Your task to perform on an android device: turn on translation in the chrome app Image 0: 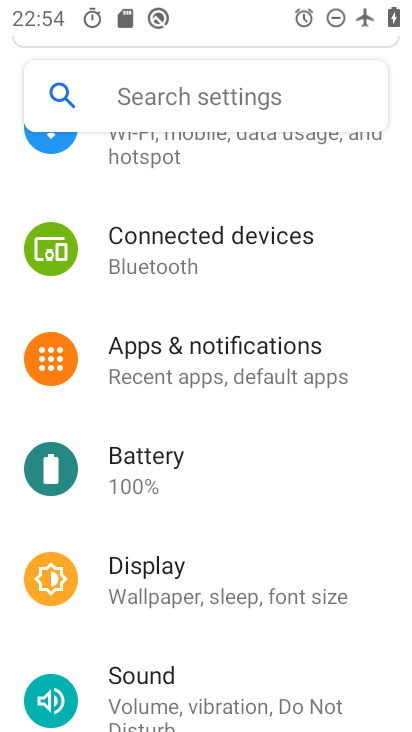
Step 0: press home button
Your task to perform on an android device: turn on translation in the chrome app Image 1: 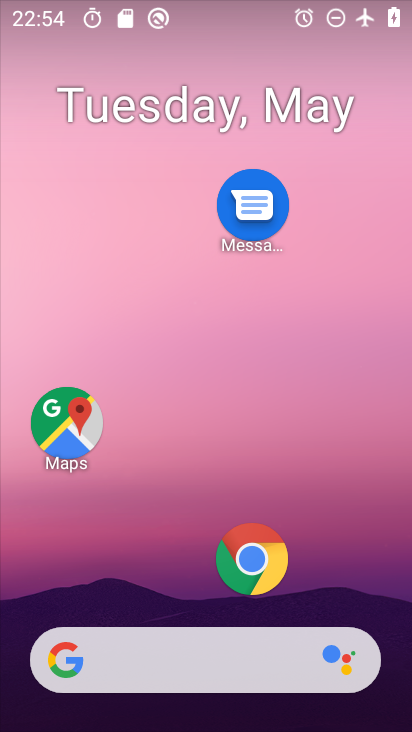
Step 1: click (273, 556)
Your task to perform on an android device: turn on translation in the chrome app Image 2: 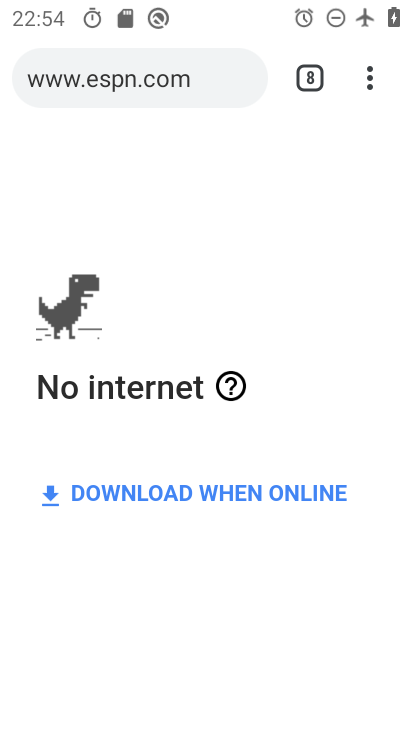
Step 2: drag from (367, 57) to (80, 617)
Your task to perform on an android device: turn on translation in the chrome app Image 3: 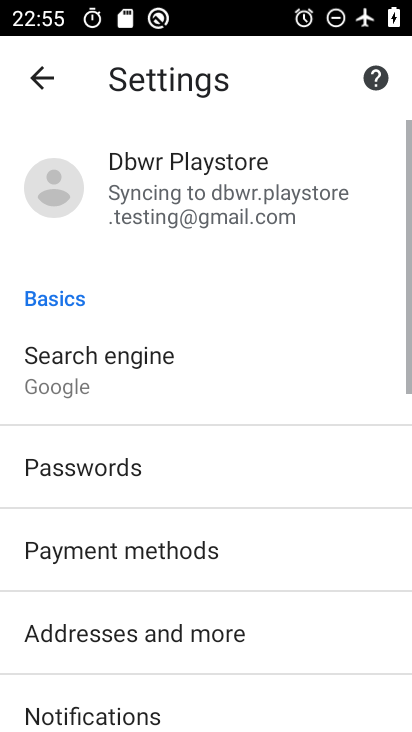
Step 3: drag from (112, 634) to (127, 236)
Your task to perform on an android device: turn on translation in the chrome app Image 4: 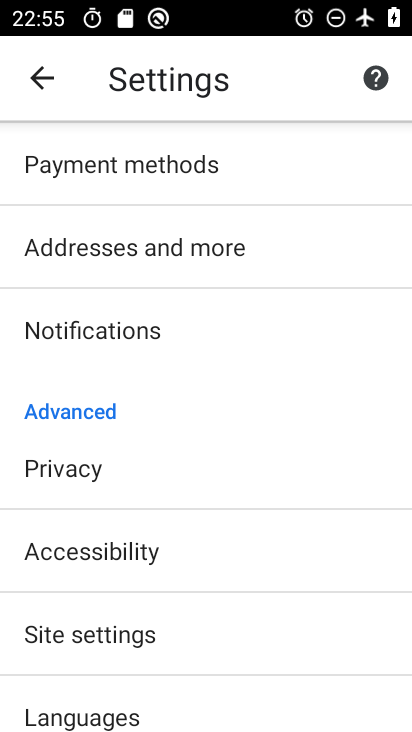
Step 4: click (127, 714)
Your task to perform on an android device: turn on translation in the chrome app Image 5: 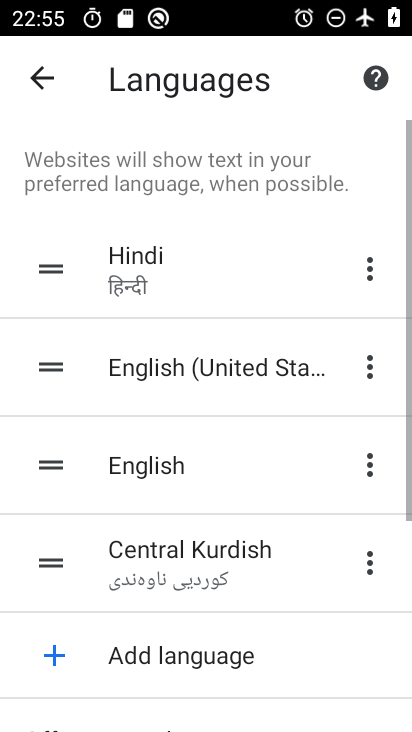
Step 5: task complete